Your task to perform on an android device: delete a single message in the gmail app Image 0: 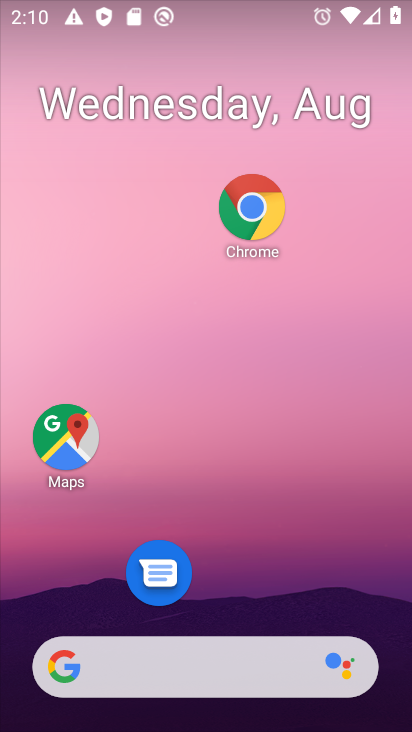
Step 0: drag from (193, 659) to (96, 4)
Your task to perform on an android device: delete a single message in the gmail app Image 1: 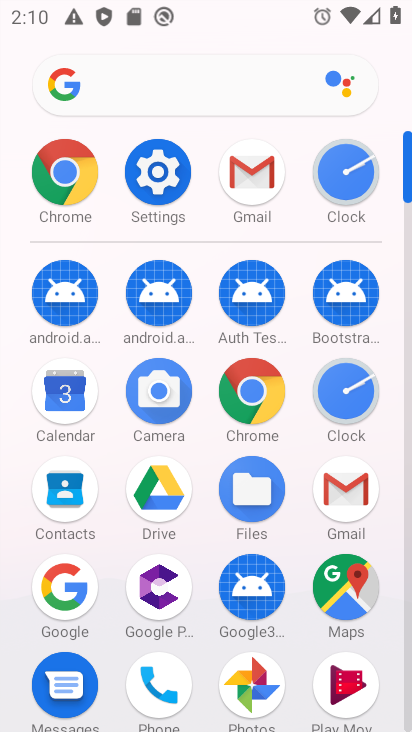
Step 1: click (362, 504)
Your task to perform on an android device: delete a single message in the gmail app Image 2: 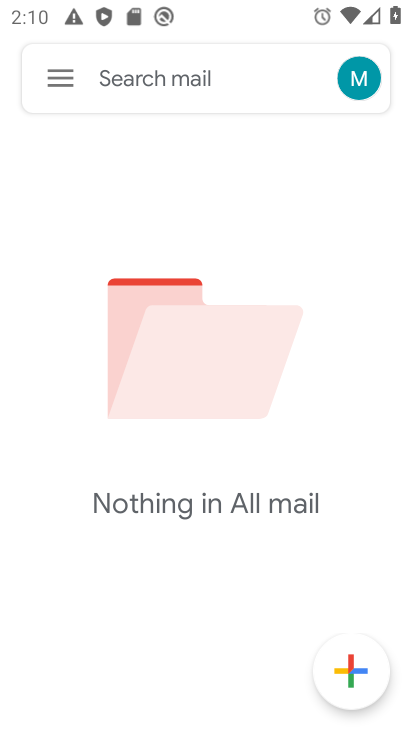
Step 2: task complete